Your task to perform on an android device: find snoozed emails in the gmail app Image 0: 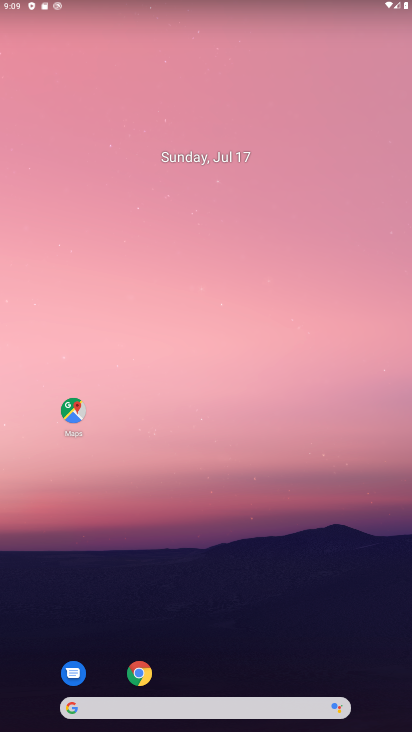
Step 0: click (8, 459)
Your task to perform on an android device: find snoozed emails in the gmail app Image 1: 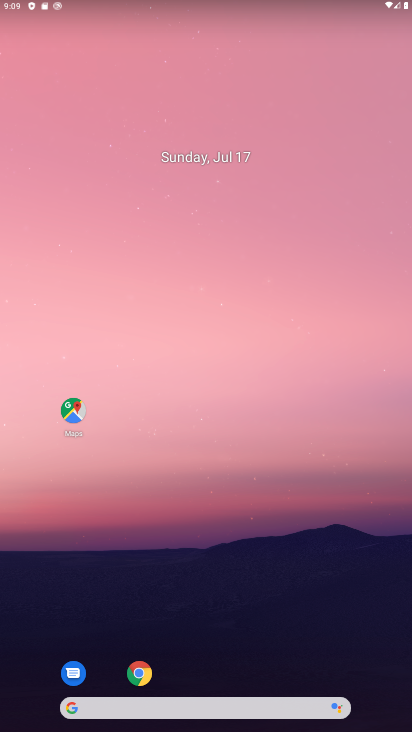
Step 1: click (8, 459)
Your task to perform on an android device: find snoozed emails in the gmail app Image 2: 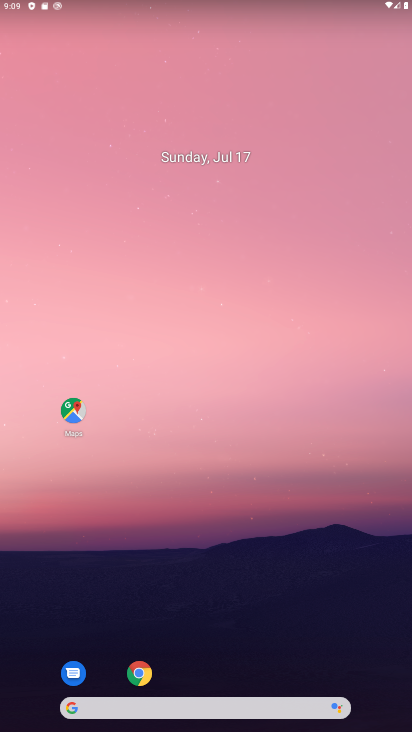
Step 2: drag from (296, 618) to (362, 109)
Your task to perform on an android device: find snoozed emails in the gmail app Image 3: 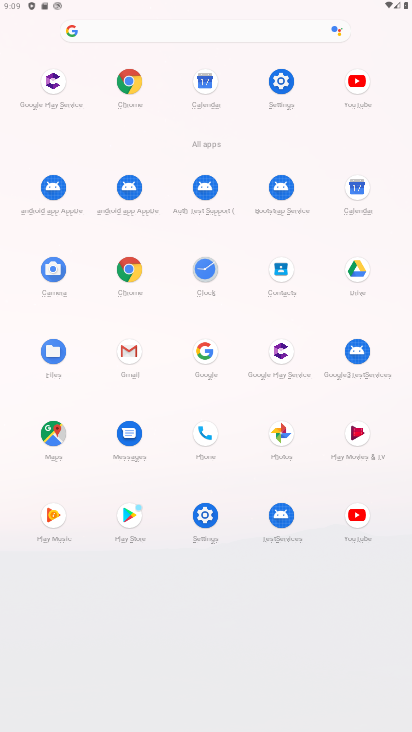
Step 3: click (135, 349)
Your task to perform on an android device: find snoozed emails in the gmail app Image 4: 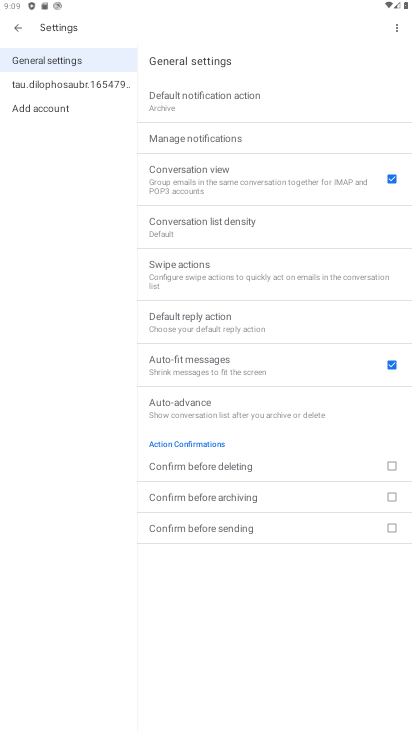
Step 4: click (14, 29)
Your task to perform on an android device: find snoozed emails in the gmail app Image 5: 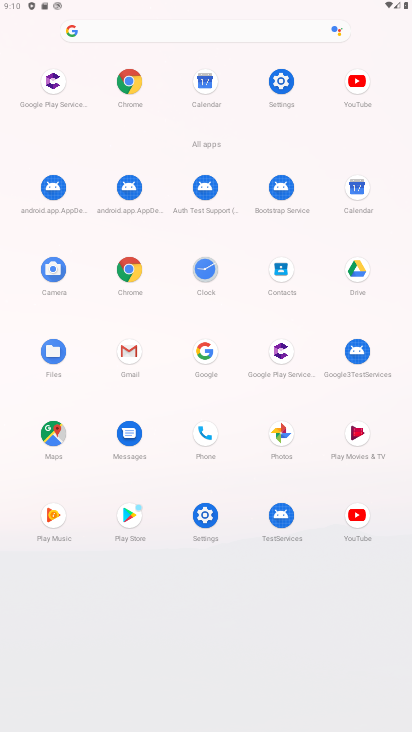
Step 5: click (127, 355)
Your task to perform on an android device: find snoozed emails in the gmail app Image 6: 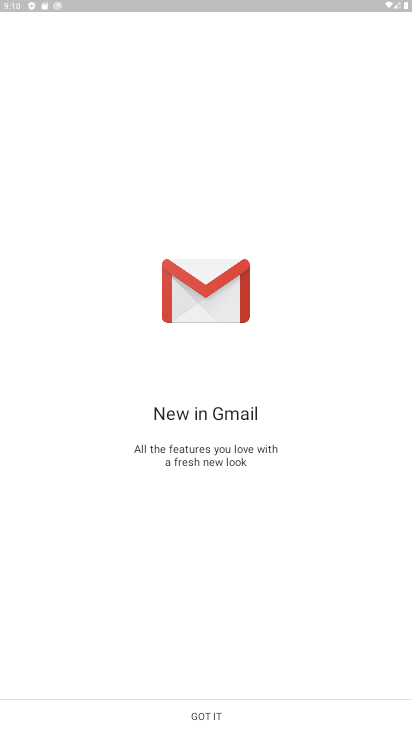
Step 6: click (320, 704)
Your task to perform on an android device: find snoozed emails in the gmail app Image 7: 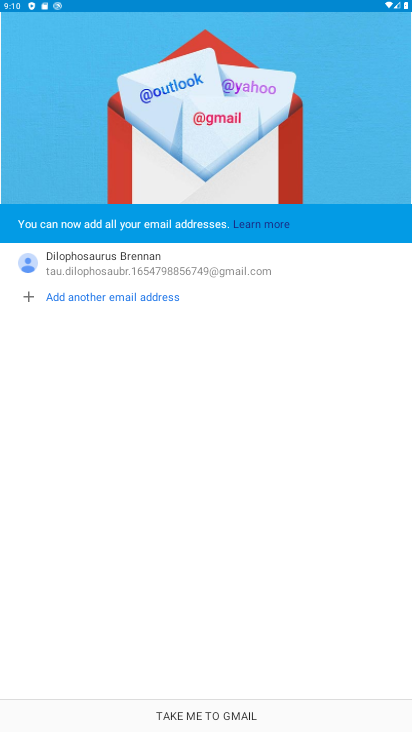
Step 7: click (273, 713)
Your task to perform on an android device: find snoozed emails in the gmail app Image 8: 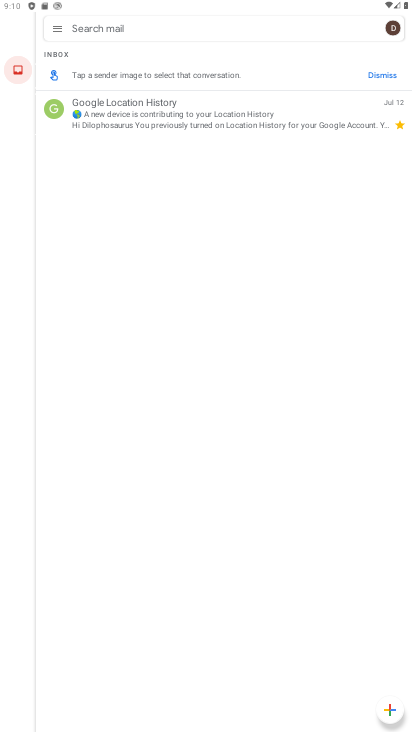
Step 8: click (56, 32)
Your task to perform on an android device: find snoozed emails in the gmail app Image 9: 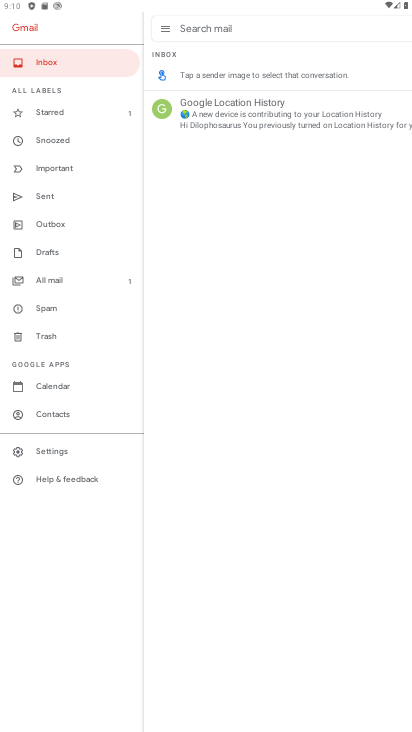
Step 9: click (80, 140)
Your task to perform on an android device: find snoozed emails in the gmail app Image 10: 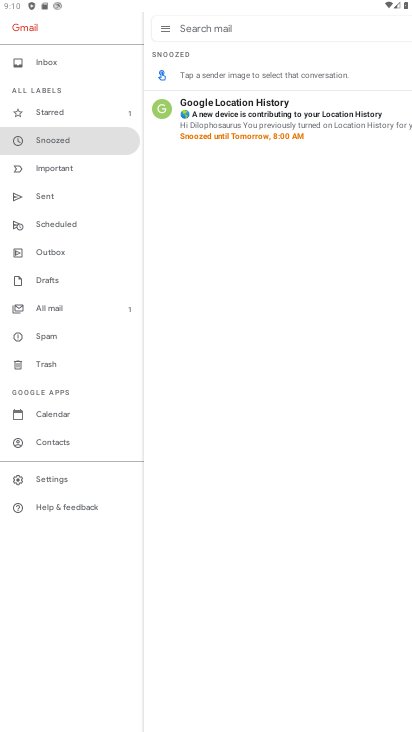
Step 10: task complete